Your task to perform on an android device: Show me recent news Image 0: 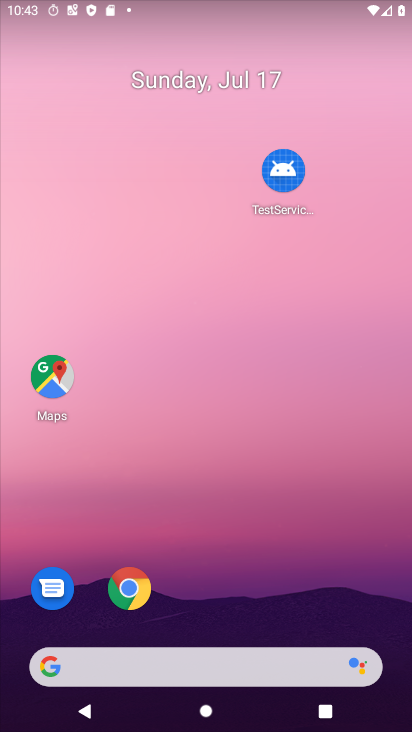
Step 0: drag from (271, 635) to (306, 80)
Your task to perform on an android device: Show me recent news Image 1: 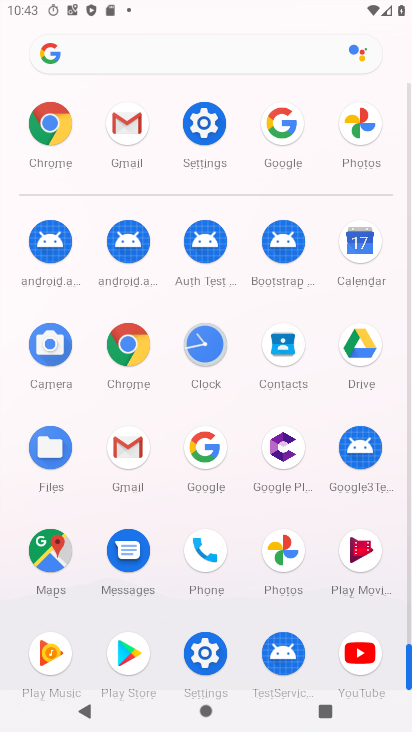
Step 1: click (213, 457)
Your task to perform on an android device: Show me recent news Image 2: 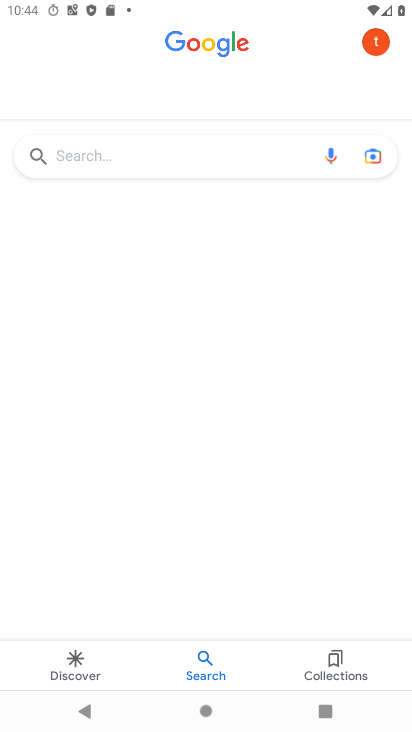
Step 2: click (155, 166)
Your task to perform on an android device: Show me recent news Image 3: 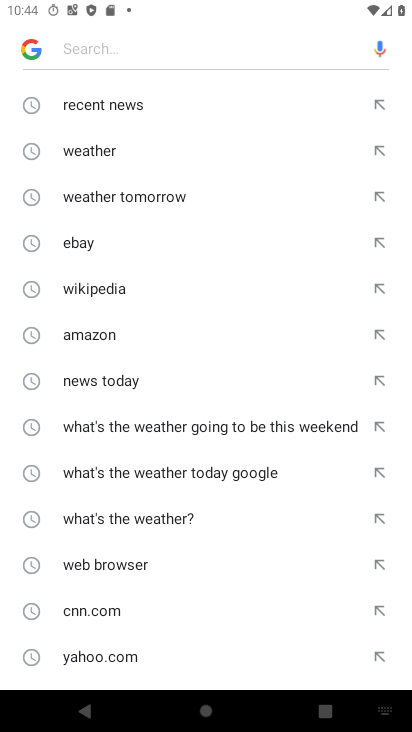
Step 3: click (136, 105)
Your task to perform on an android device: Show me recent news Image 4: 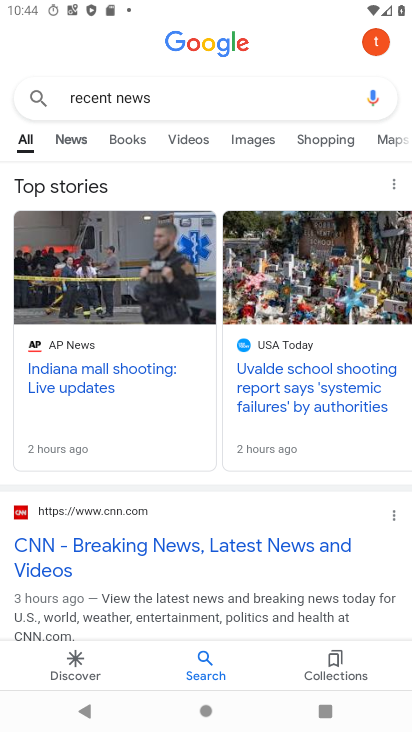
Step 4: click (68, 135)
Your task to perform on an android device: Show me recent news Image 5: 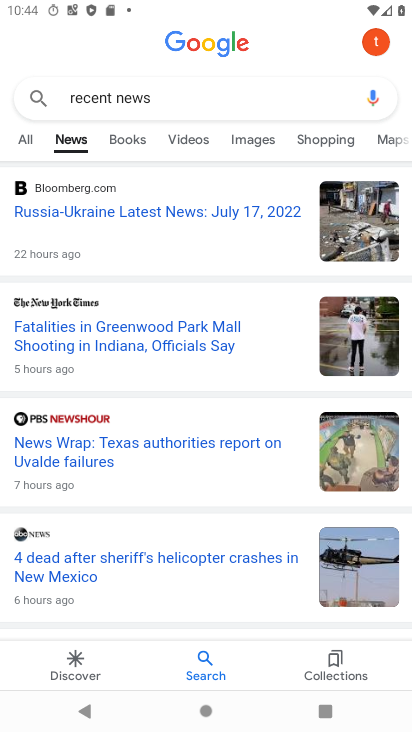
Step 5: task complete